Your task to perform on an android device: Search for Italian restaurants on Maps Image 0: 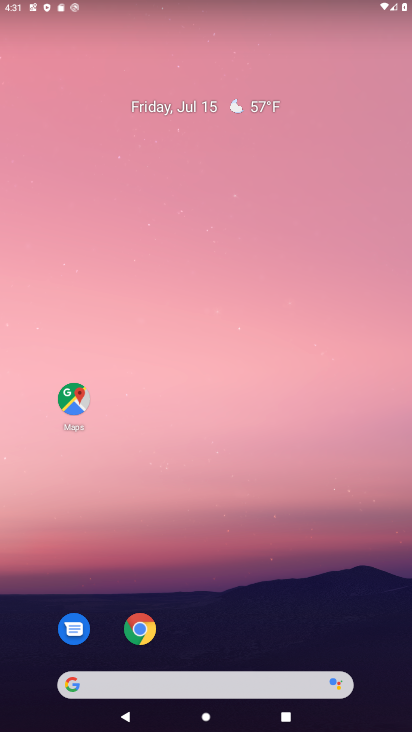
Step 0: drag from (271, 363) to (282, 21)
Your task to perform on an android device: Search for Italian restaurants on Maps Image 1: 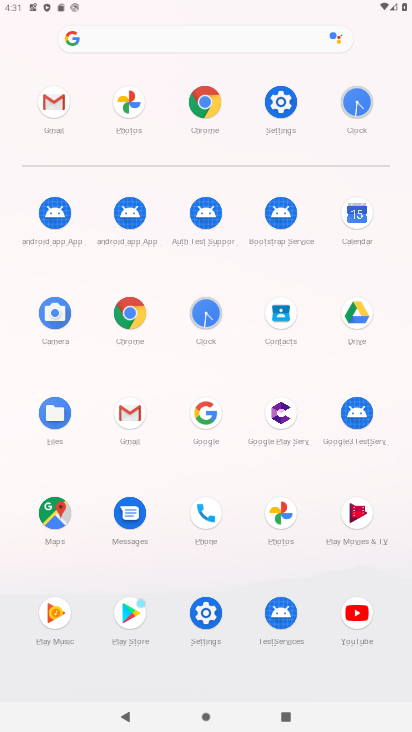
Step 1: click (64, 501)
Your task to perform on an android device: Search for Italian restaurants on Maps Image 2: 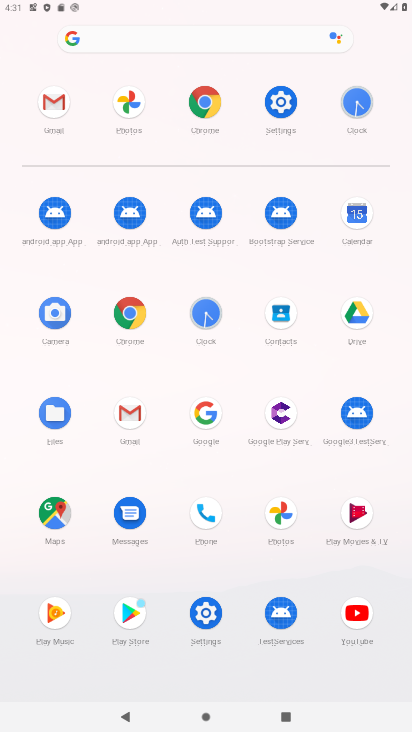
Step 2: click (53, 514)
Your task to perform on an android device: Search for Italian restaurants on Maps Image 3: 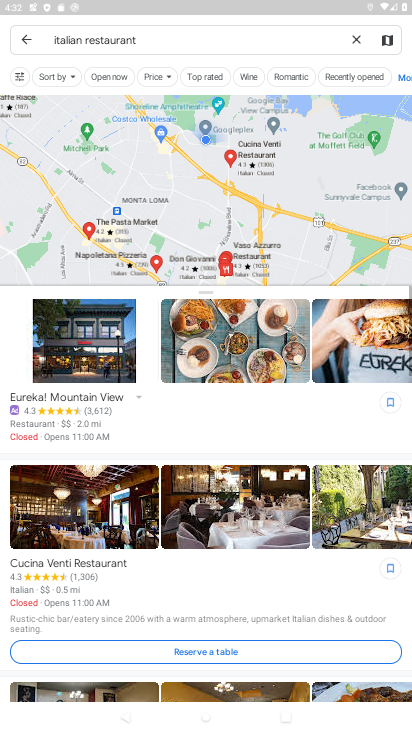
Step 3: click (358, 39)
Your task to perform on an android device: Search for Italian restaurants on Maps Image 4: 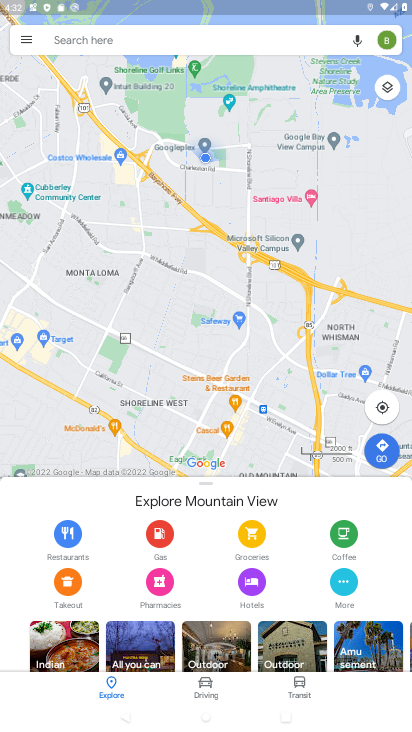
Step 4: click (155, 16)
Your task to perform on an android device: Search for Italian restaurants on Maps Image 5: 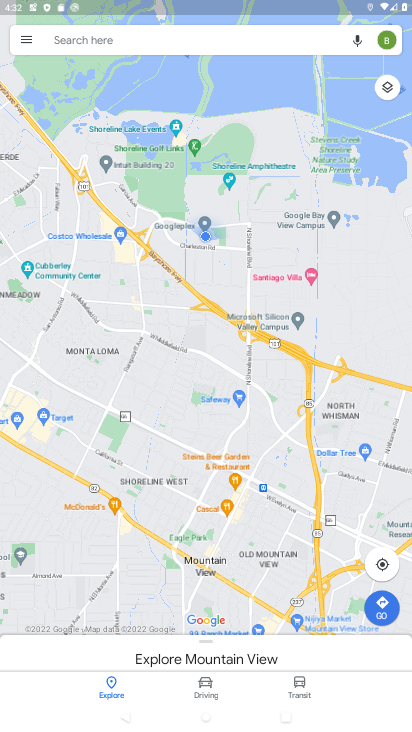
Step 5: click (117, 41)
Your task to perform on an android device: Search for Italian restaurants on Maps Image 6: 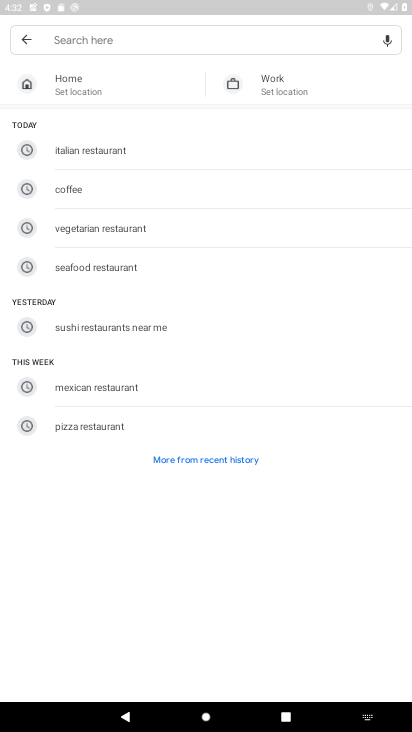
Step 6: click (111, 140)
Your task to perform on an android device: Search for Italian restaurants on Maps Image 7: 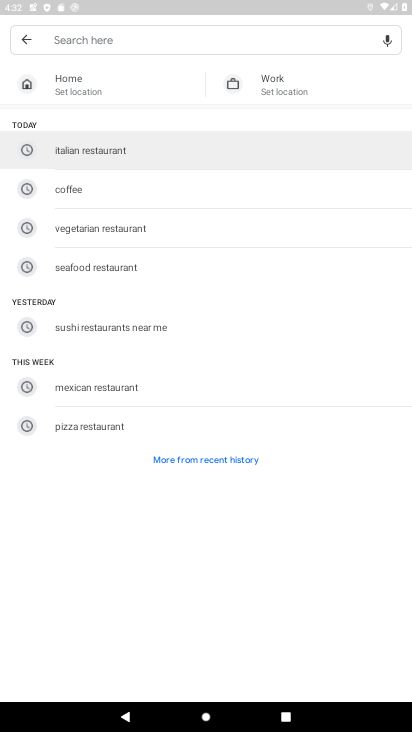
Step 7: click (101, 153)
Your task to perform on an android device: Search for Italian restaurants on Maps Image 8: 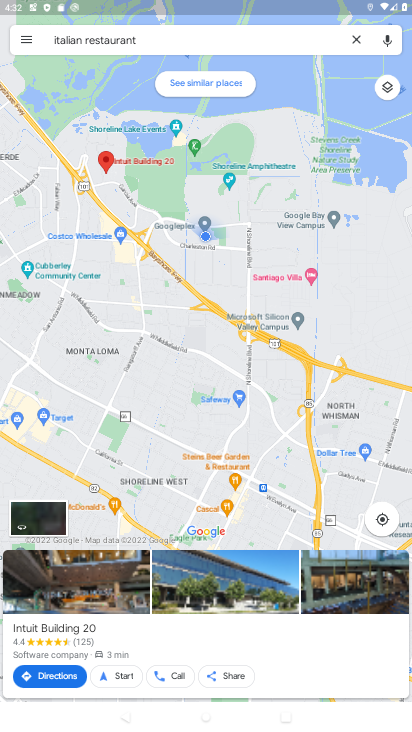
Step 8: task complete